Your task to perform on an android device: Do I have any events this weekend? Image 0: 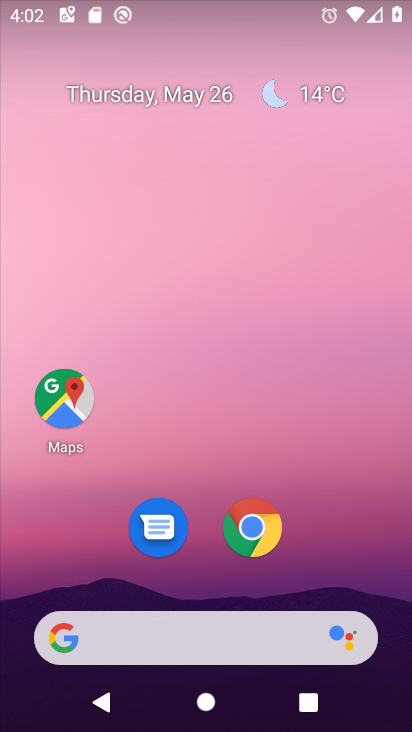
Step 0: drag from (395, 577) to (286, 106)
Your task to perform on an android device: Do I have any events this weekend? Image 1: 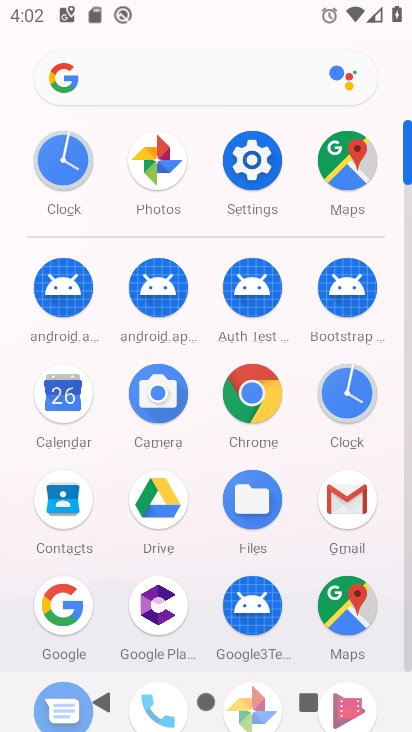
Step 1: click (59, 395)
Your task to perform on an android device: Do I have any events this weekend? Image 2: 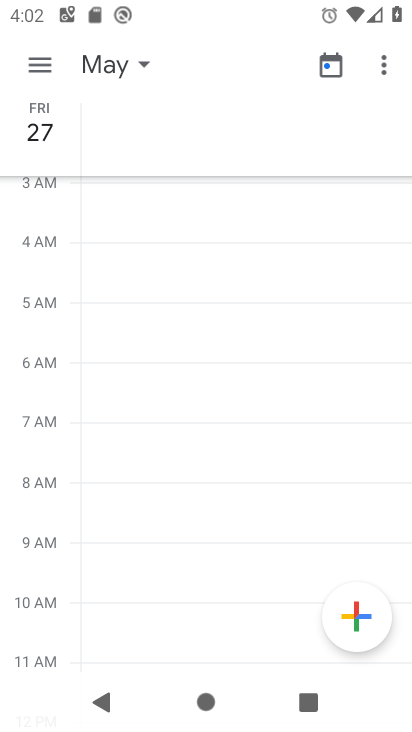
Step 2: click (42, 66)
Your task to perform on an android device: Do I have any events this weekend? Image 3: 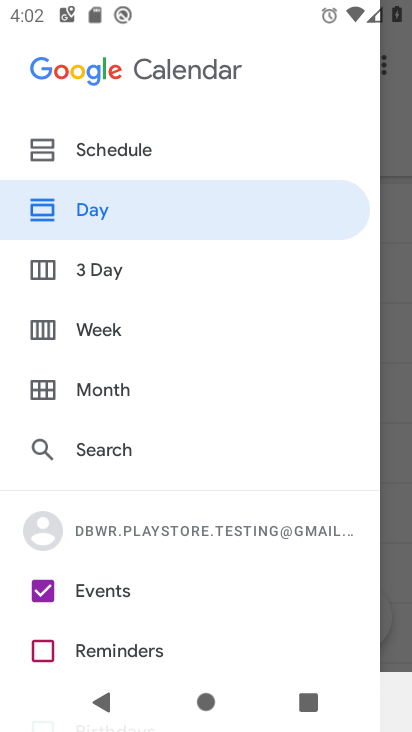
Step 3: click (161, 266)
Your task to perform on an android device: Do I have any events this weekend? Image 4: 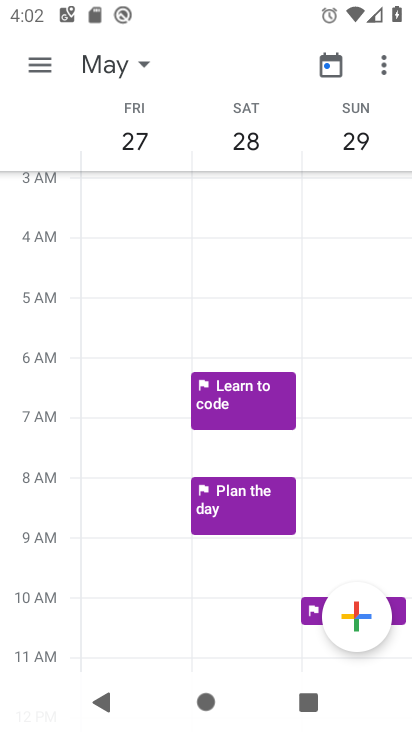
Step 4: task complete